Your task to perform on an android device: Search for Mexican restaurants on Maps Image 0: 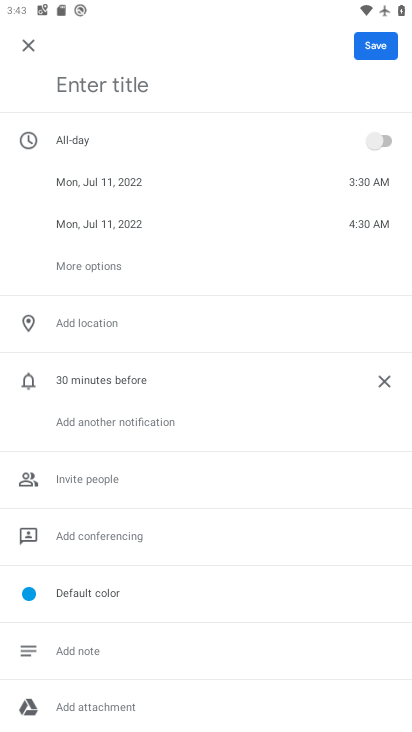
Step 0: press home button
Your task to perform on an android device: Search for Mexican restaurants on Maps Image 1: 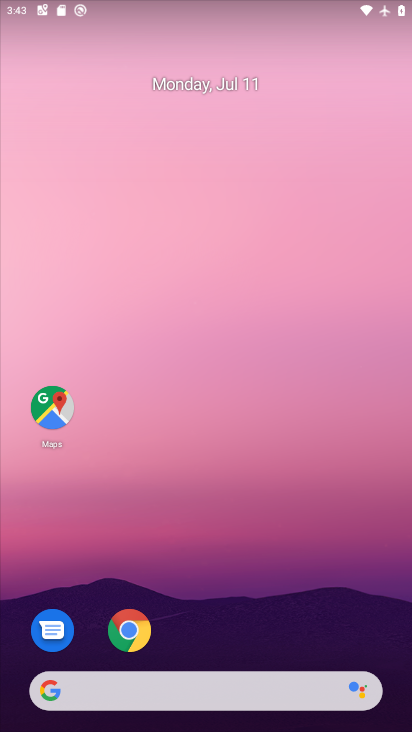
Step 1: click (46, 411)
Your task to perform on an android device: Search for Mexican restaurants on Maps Image 2: 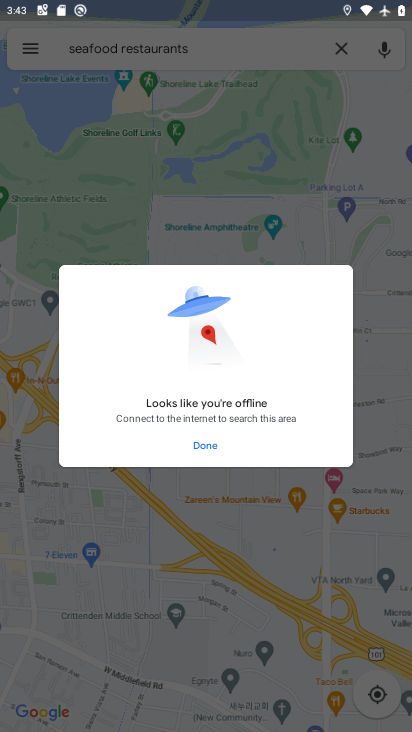
Step 2: click (216, 439)
Your task to perform on an android device: Search for Mexican restaurants on Maps Image 3: 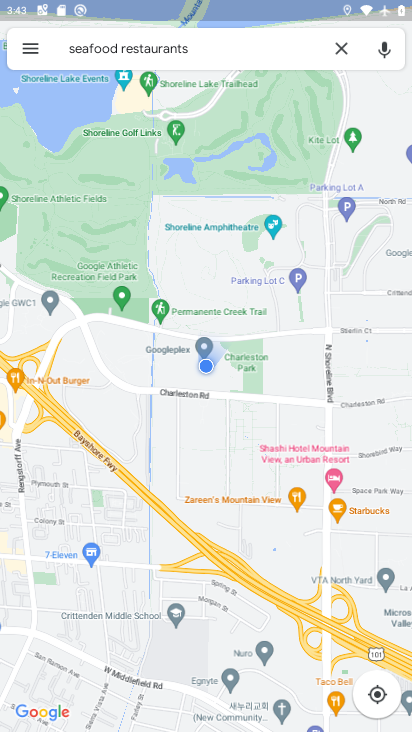
Step 3: click (336, 42)
Your task to perform on an android device: Search for Mexican restaurants on Maps Image 4: 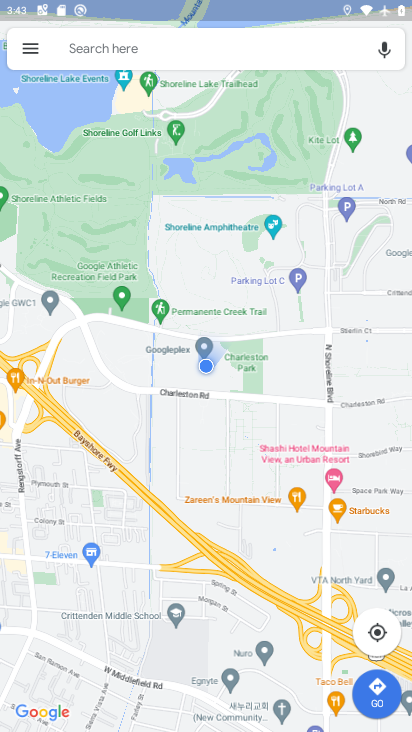
Step 4: click (163, 51)
Your task to perform on an android device: Search for Mexican restaurants on Maps Image 5: 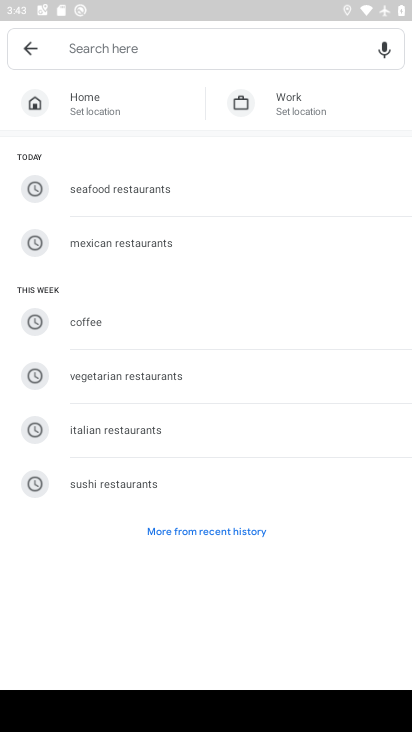
Step 5: click (137, 246)
Your task to perform on an android device: Search for Mexican restaurants on Maps Image 6: 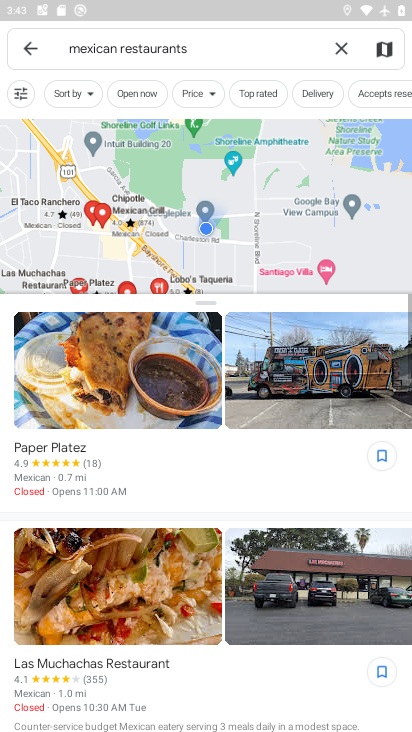
Step 6: task complete